Your task to perform on an android device: View the shopping cart on ebay. Add "razer blade" to the cart on ebay Image 0: 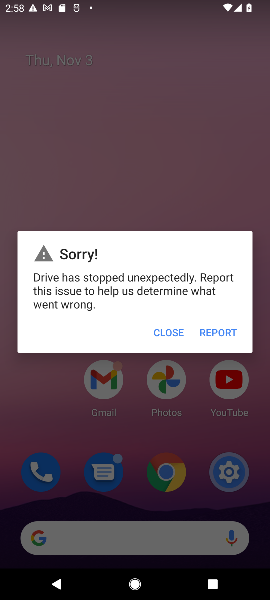
Step 0: click (165, 330)
Your task to perform on an android device: View the shopping cart on ebay. Add "razer blade" to the cart on ebay Image 1: 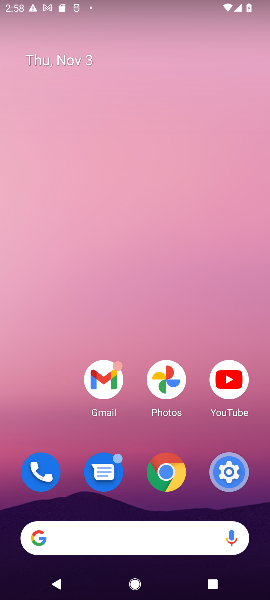
Step 1: click (101, 541)
Your task to perform on an android device: View the shopping cart on ebay. Add "razer blade" to the cart on ebay Image 2: 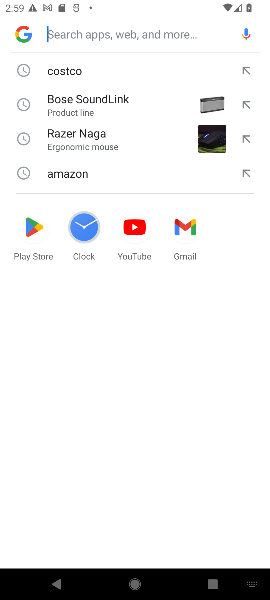
Step 2: type "ebay.com"
Your task to perform on an android device: View the shopping cart on ebay. Add "razer blade" to the cart on ebay Image 3: 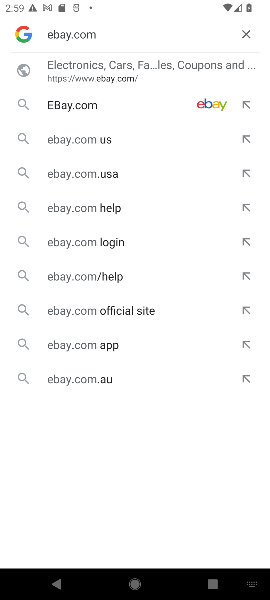
Step 3: click (157, 107)
Your task to perform on an android device: View the shopping cart on ebay. Add "razer blade" to the cart on ebay Image 4: 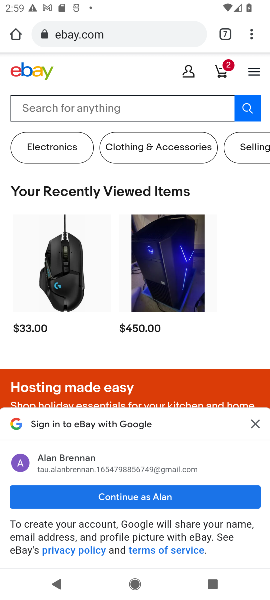
Step 4: click (90, 112)
Your task to perform on an android device: View the shopping cart on ebay. Add "razer blade" to the cart on ebay Image 5: 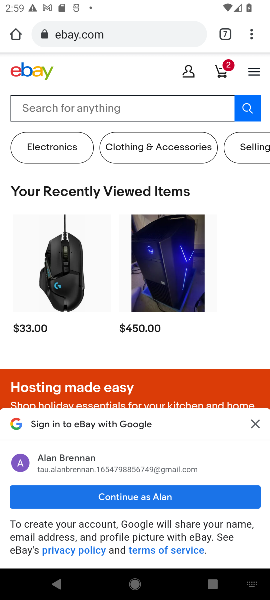
Step 5: click (81, 110)
Your task to perform on an android device: View the shopping cart on ebay. Add "razer blade" to the cart on ebay Image 6: 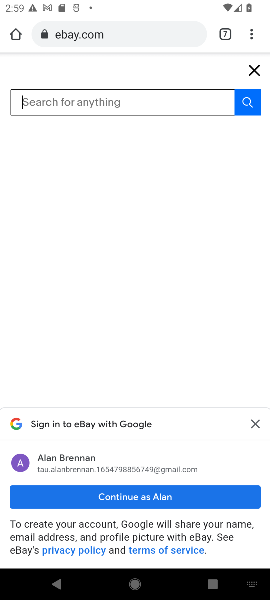
Step 6: type "razer blade"
Your task to perform on an android device: View the shopping cart on ebay. Add "razer blade" to the cart on ebay Image 7: 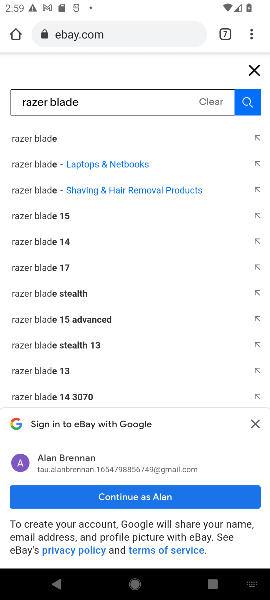
Step 7: click (42, 144)
Your task to perform on an android device: View the shopping cart on ebay. Add "razer blade" to the cart on ebay Image 8: 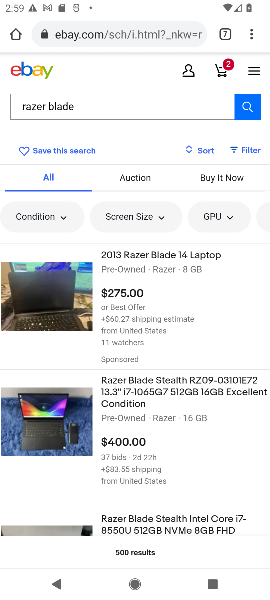
Step 8: click (117, 259)
Your task to perform on an android device: View the shopping cart on ebay. Add "razer blade" to the cart on ebay Image 9: 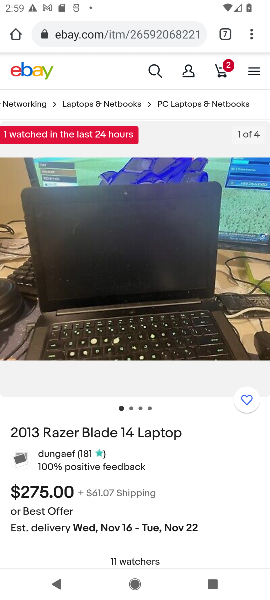
Step 9: drag from (203, 467) to (203, 191)
Your task to perform on an android device: View the shopping cart on ebay. Add "razer blade" to the cart on ebay Image 10: 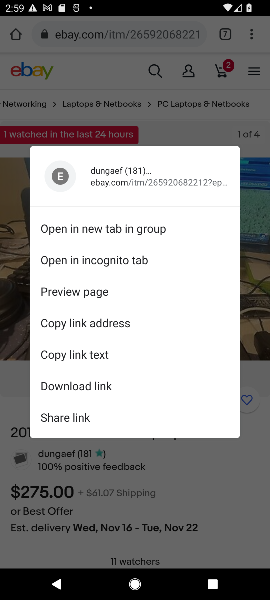
Step 10: click (232, 474)
Your task to perform on an android device: View the shopping cart on ebay. Add "razer blade" to the cart on ebay Image 11: 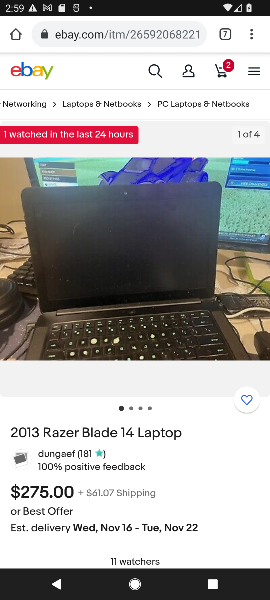
Step 11: drag from (232, 474) to (216, 224)
Your task to perform on an android device: View the shopping cart on ebay. Add "razer blade" to the cart on ebay Image 12: 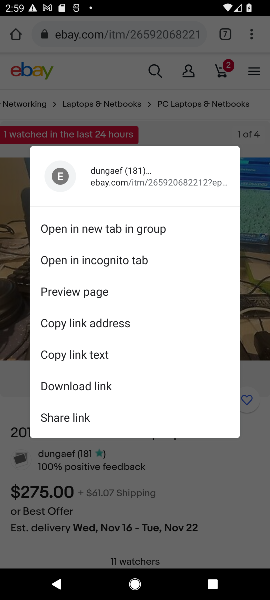
Step 12: click (226, 497)
Your task to perform on an android device: View the shopping cart on ebay. Add "razer blade" to the cart on ebay Image 13: 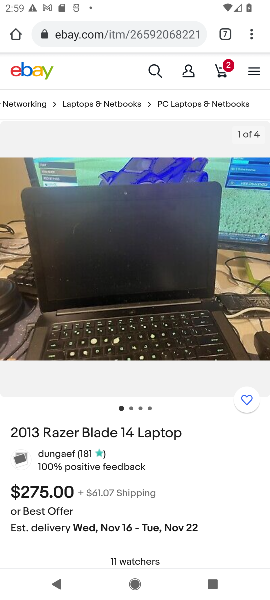
Step 13: drag from (226, 497) to (65, 117)
Your task to perform on an android device: View the shopping cart on ebay. Add "razer blade" to the cart on ebay Image 14: 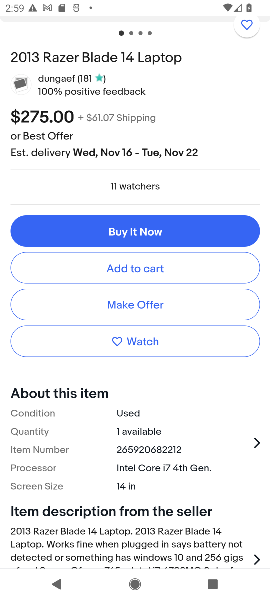
Step 14: click (141, 270)
Your task to perform on an android device: View the shopping cart on ebay. Add "razer blade" to the cart on ebay Image 15: 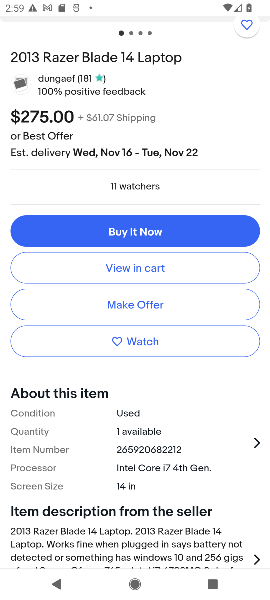
Step 15: task complete